Your task to perform on an android device: turn off data saver in the chrome app Image 0: 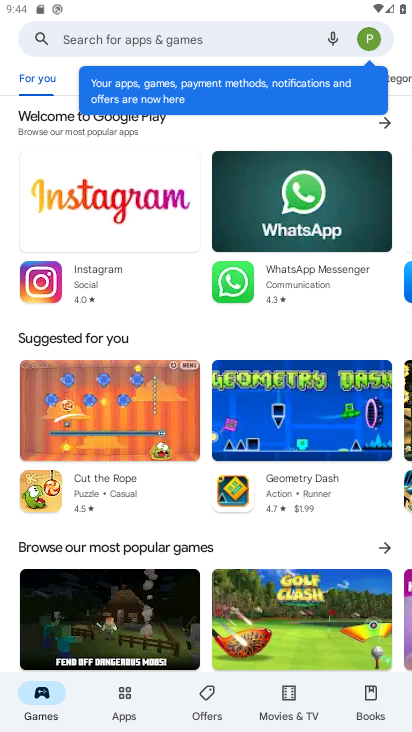
Step 0: press home button
Your task to perform on an android device: turn off data saver in the chrome app Image 1: 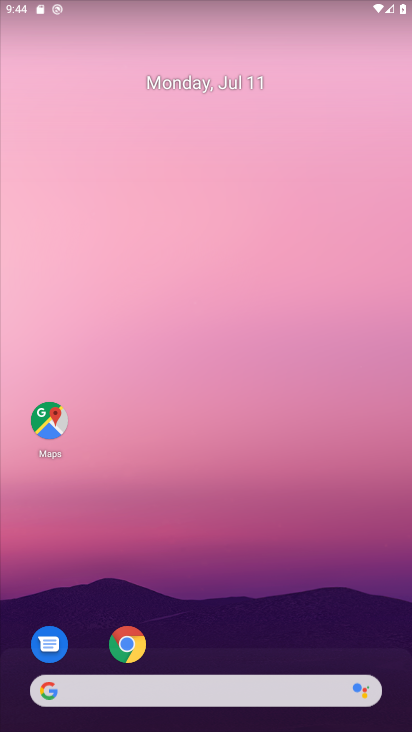
Step 1: click (118, 656)
Your task to perform on an android device: turn off data saver in the chrome app Image 2: 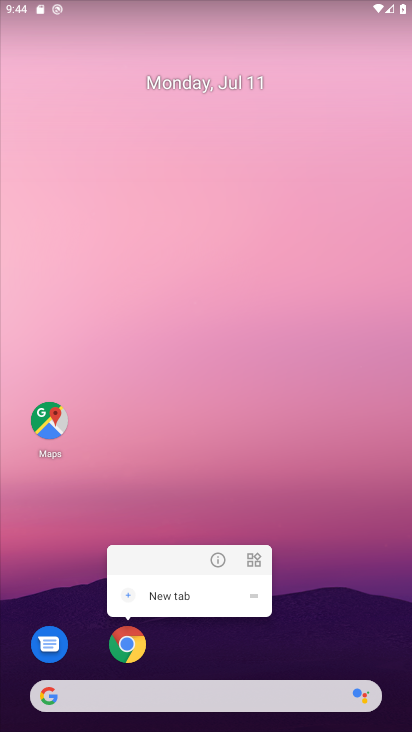
Step 2: click (192, 654)
Your task to perform on an android device: turn off data saver in the chrome app Image 3: 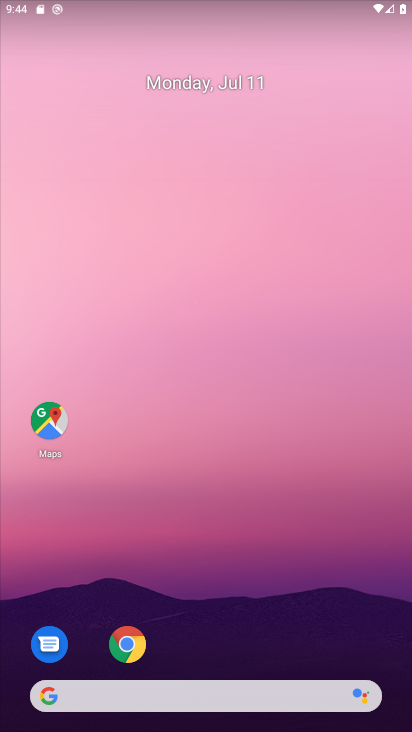
Step 3: drag from (282, 639) to (282, 79)
Your task to perform on an android device: turn off data saver in the chrome app Image 4: 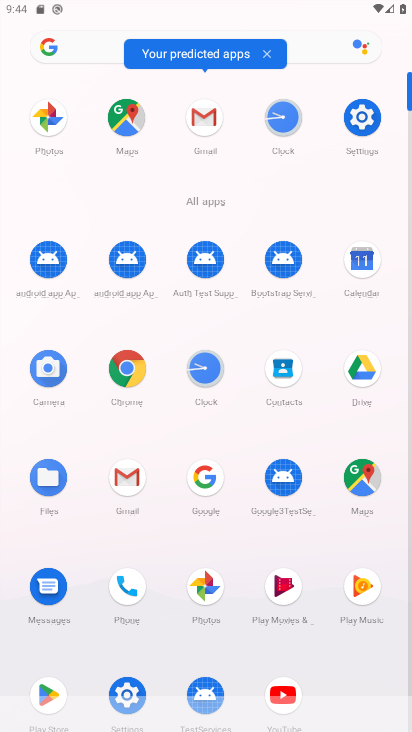
Step 4: click (130, 363)
Your task to perform on an android device: turn off data saver in the chrome app Image 5: 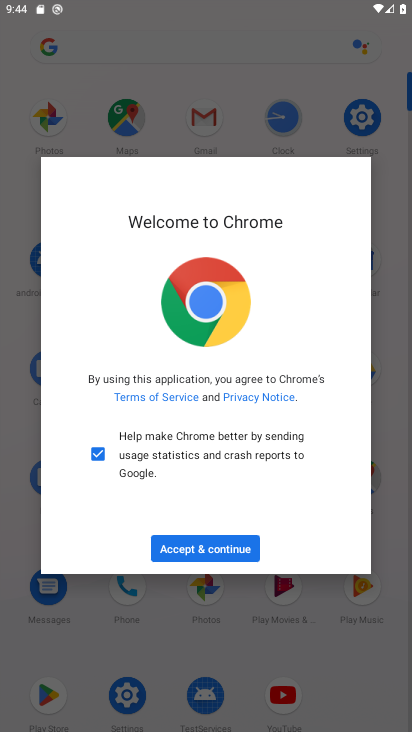
Step 5: click (244, 540)
Your task to perform on an android device: turn off data saver in the chrome app Image 6: 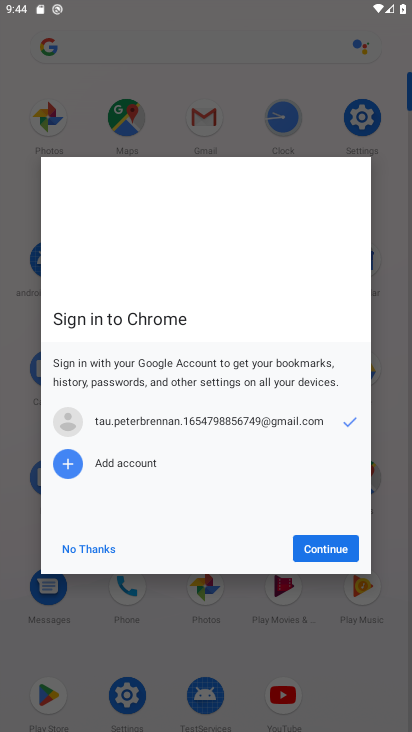
Step 6: click (310, 547)
Your task to perform on an android device: turn off data saver in the chrome app Image 7: 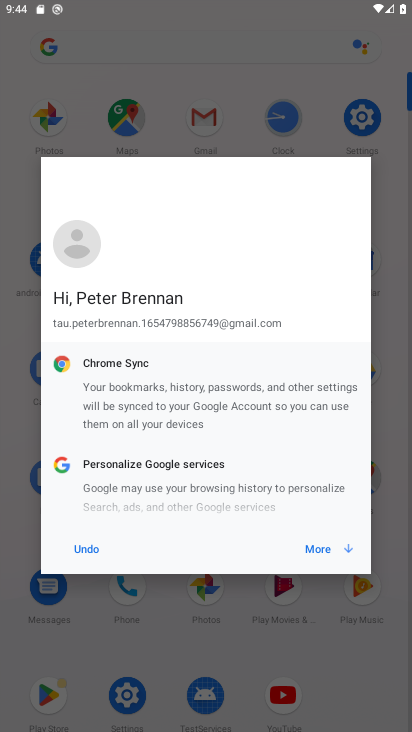
Step 7: click (310, 547)
Your task to perform on an android device: turn off data saver in the chrome app Image 8: 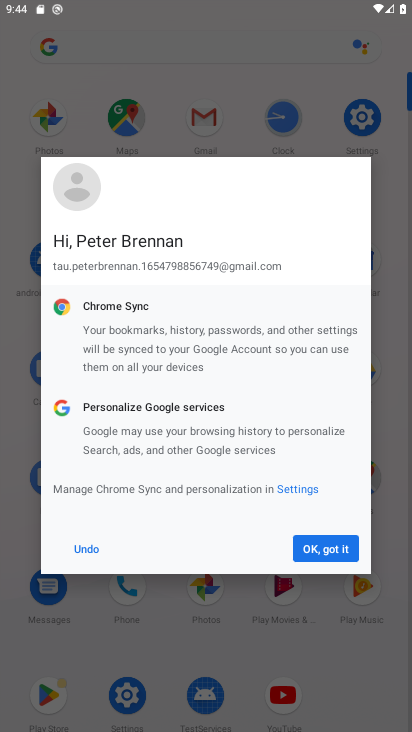
Step 8: click (310, 547)
Your task to perform on an android device: turn off data saver in the chrome app Image 9: 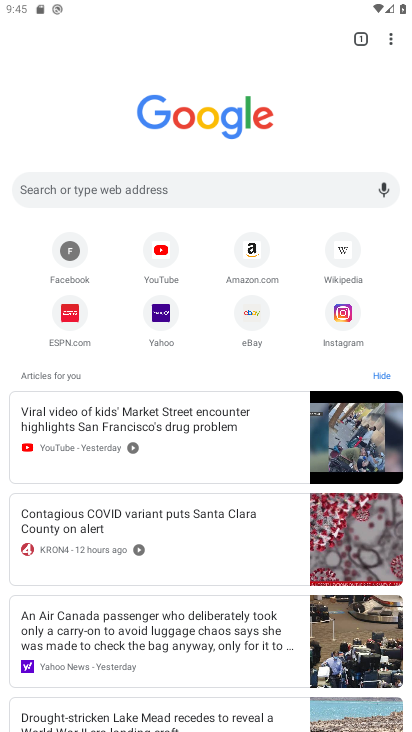
Step 9: drag from (389, 37) to (295, 326)
Your task to perform on an android device: turn off data saver in the chrome app Image 10: 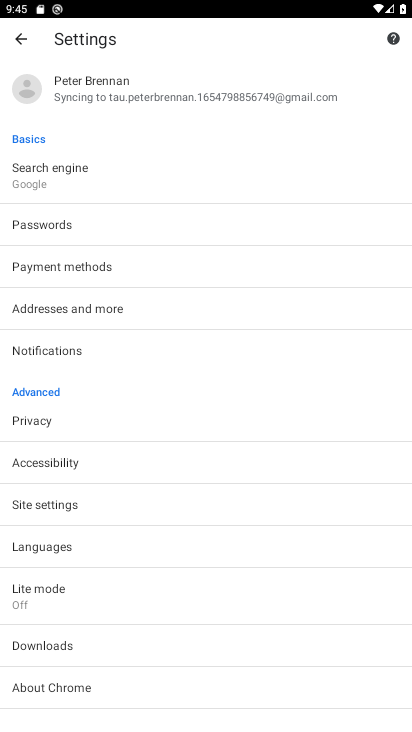
Step 10: click (59, 592)
Your task to perform on an android device: turn off data saver in the chrome app Image 11: 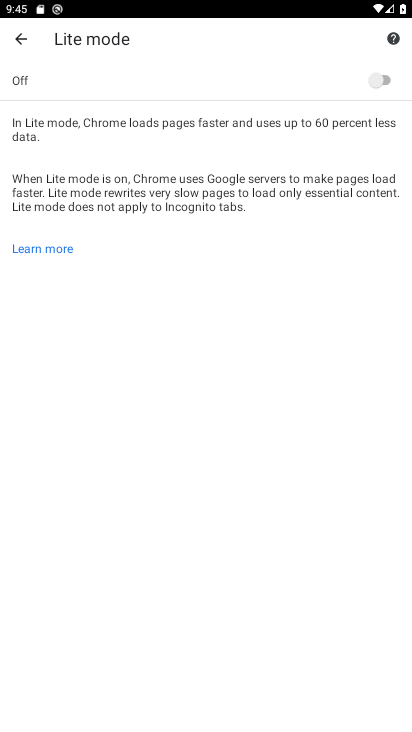
Step 11: task complete